Your task to perform on an android device: Open sound settings Image 0: 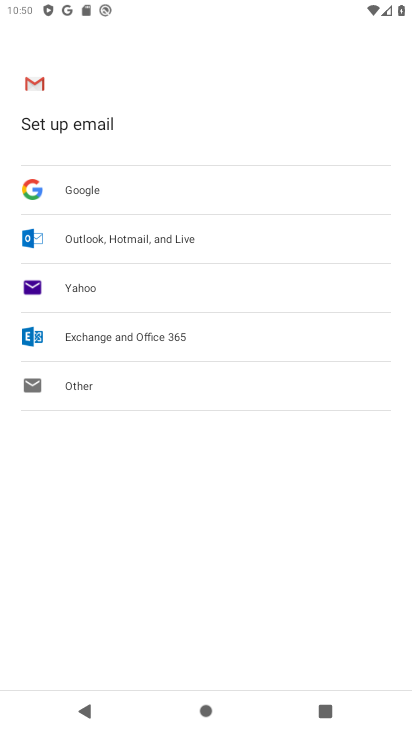
Step 0: press home button
Your task to perform on an android device: Open sound settings Image 1: 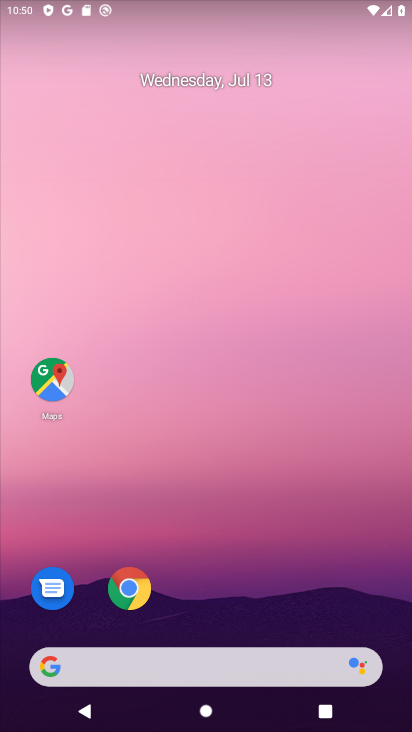
Step 1: drag from (196, 636) to (309, 104)
Your task to perform on an android device: Open sound settings Image 2: 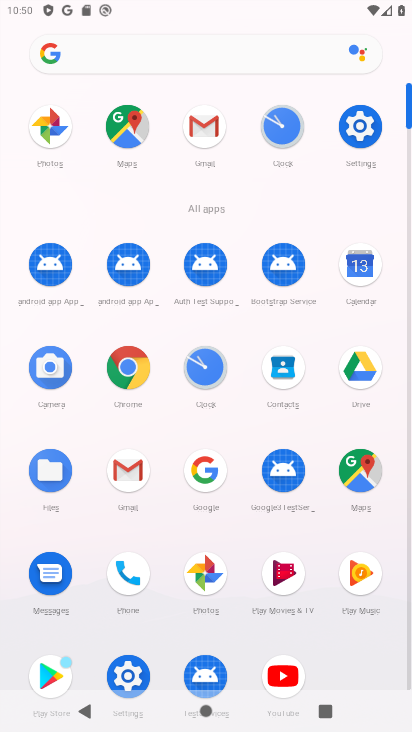
Step 2: click (112, 668)
Your task to perform on an android device: Open sound settings Image 3: 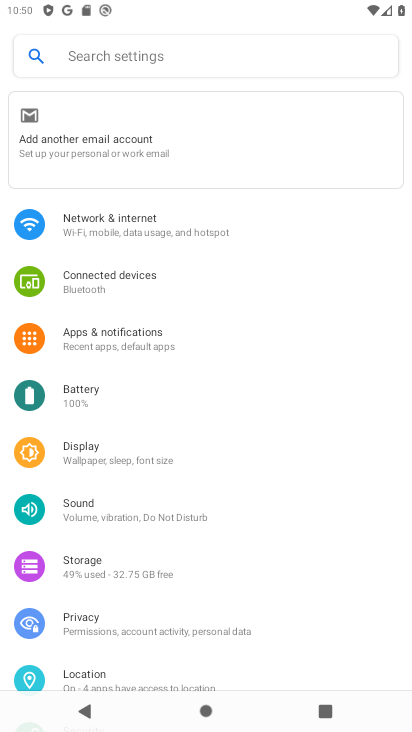
Step 3: click (94, 511)
Your task to perform on an android device: Open sound settings Image 4: 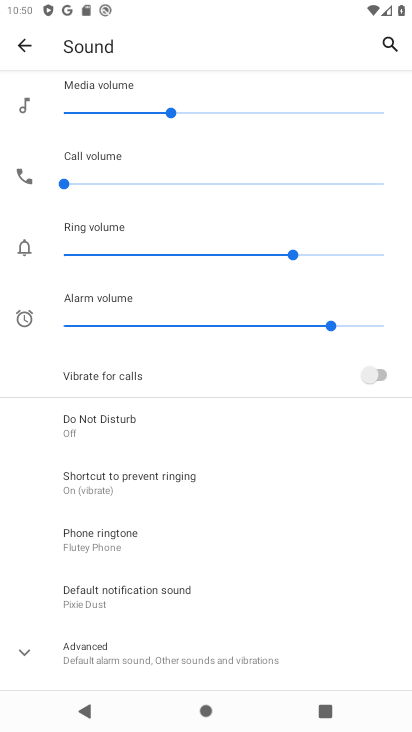
Step 4: task complete